Your task to perform on an android device: Search for vegetarian restaurants on Maps Image 0: 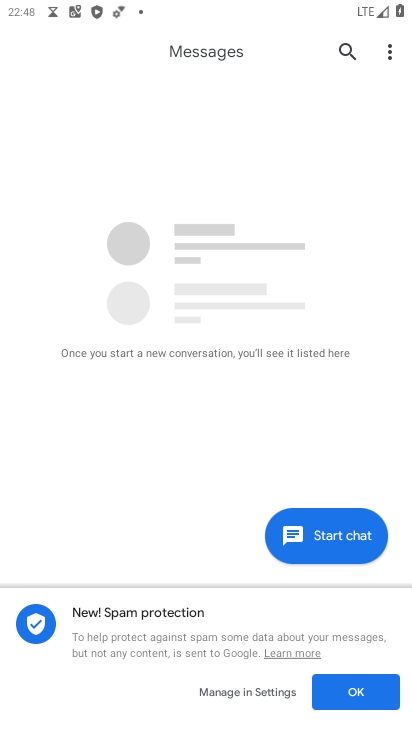
Step 0: press back button
Your task to perform on an android device: Search for vegetarian restaurants on Maps Image 1: 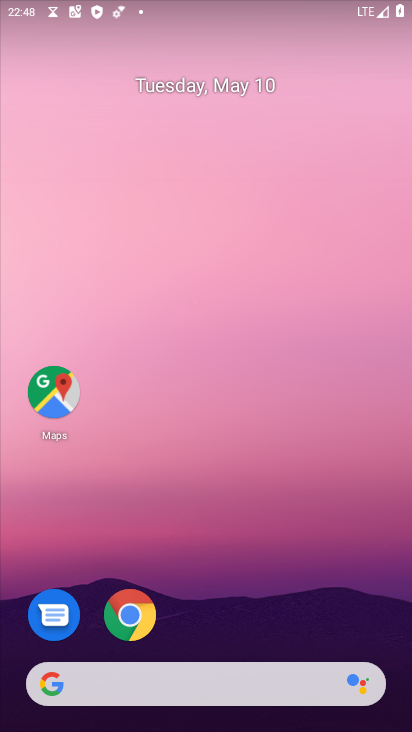
Step 1: click (55, 392)
Your task to perform on an android device: Search for vegetarian restaurants on Maps Image 2: 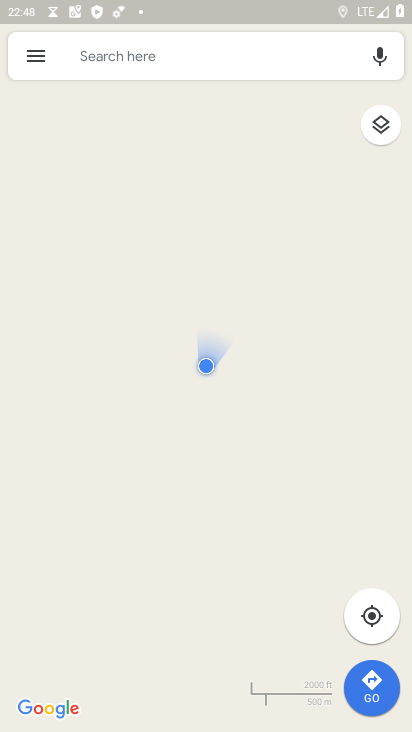
Step 2: click (189, 63)
Your task to perform on an android device: Search for vegetarian restaurants on Maps Image 3: 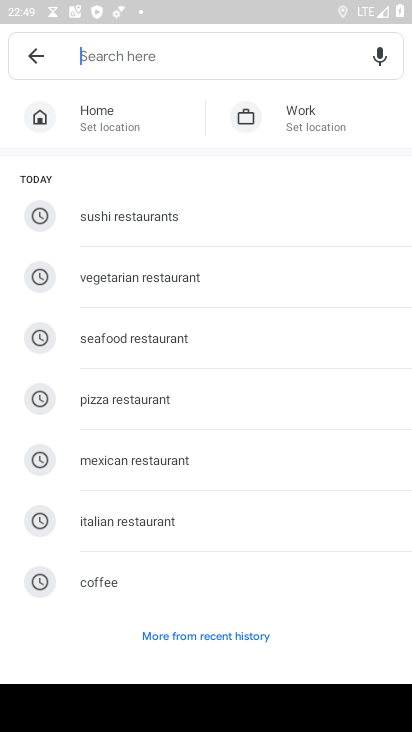
Step 3: type "vegetarian restaurants"
Your task to perform on an android device: Search for vegetarian restaurants on Maps Image 4: 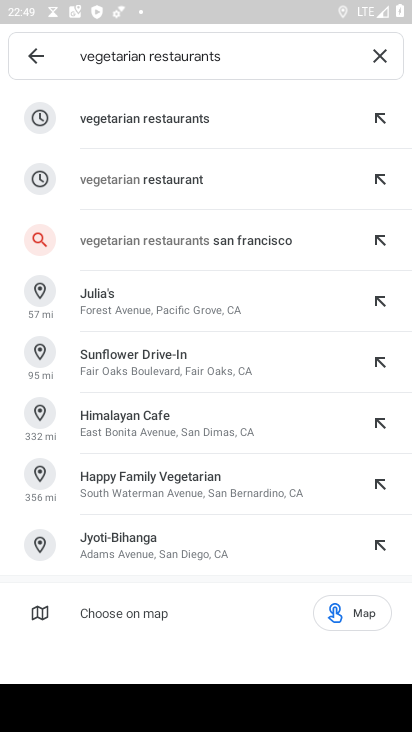
Step 4: click (181, 118)
Your task to perform on an android device: Search for vegetarian restaurants on Maps Image 5: 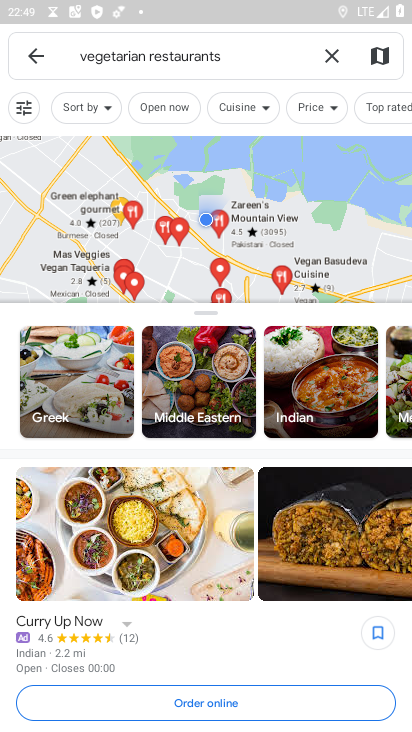
Step 5: task complete